Your task to perform on an android device: turn on sleep mode Image 0: 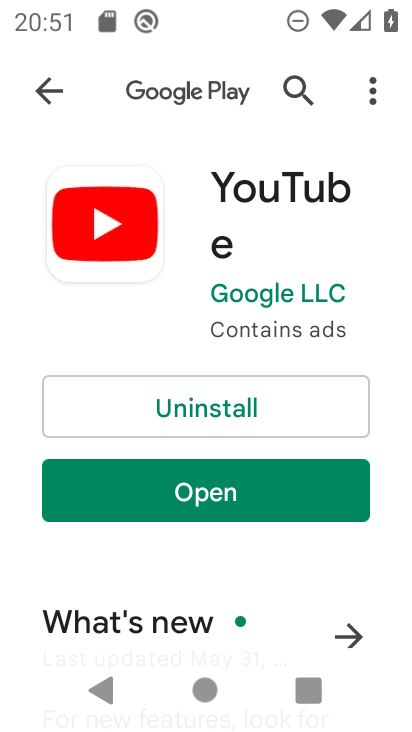
Step 0: press home button
Your task to perform on an android device: turn on sleep mode Image 1: 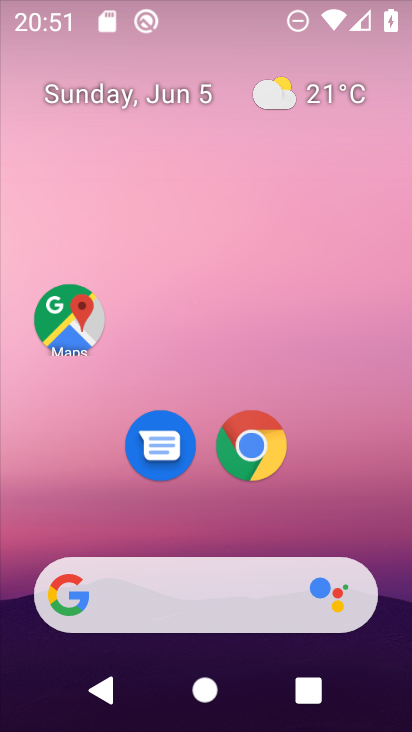
Step 1: drag from (344, 467) to (342, 54)
Your task to perform on an android device: turn on sleep mode Image 2: 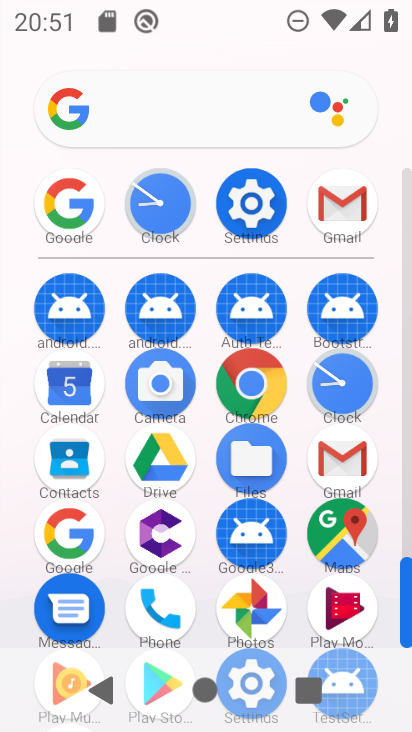
Step 2: click (251, 214)
Your task to perform on an android device: turn on sleep mode Image 3: 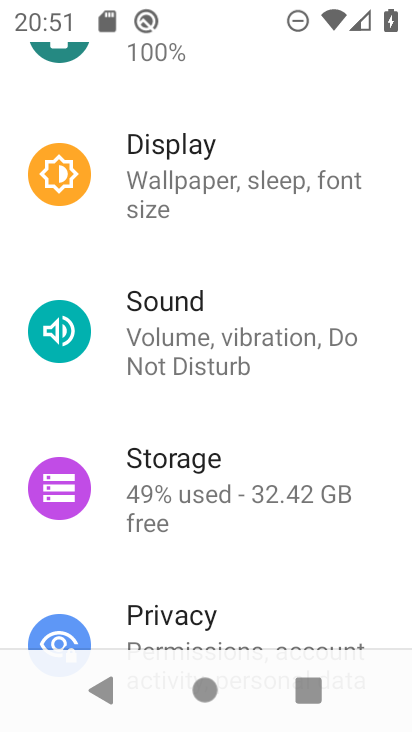
Step 3: click (241, 194)
Your task to perform on an android device: turn on sleep mode Image 4: 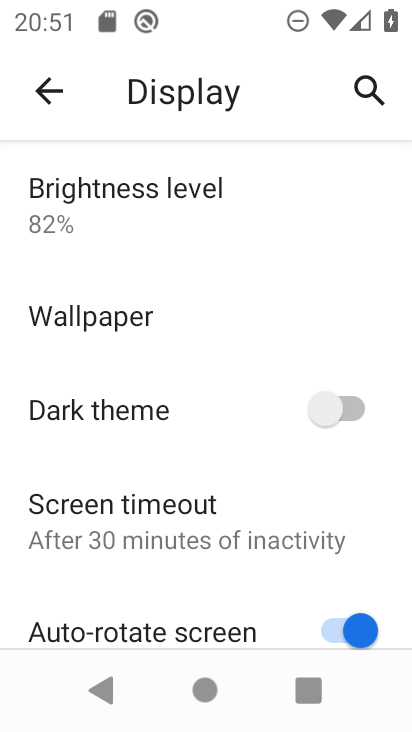
Step 4: drag from (52, 589) to (119, 207)
Your task to perform on an android device: turn on sleep mode Image 5: 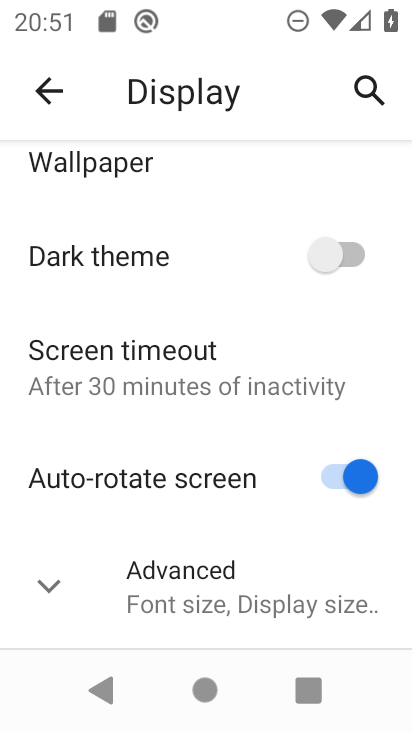
Step 5: click (47, 590)
Your task to perform on an android device: turn on sleep mode Image 6: 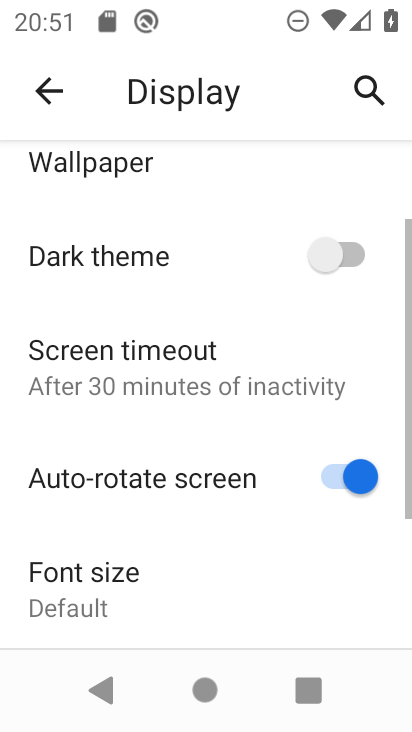
Step 6: task complete